Your task to perform on an android device: delete a single message in the gmail app Image 0: 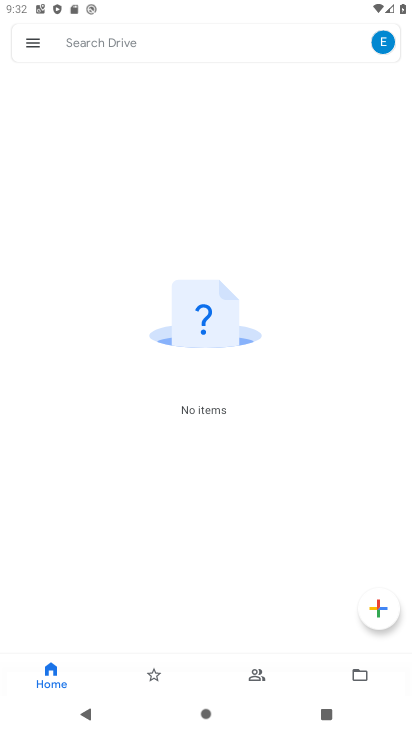
Step 0: press home button
Your task to perform on an android device: delete a single message in the gmail app Image 1: 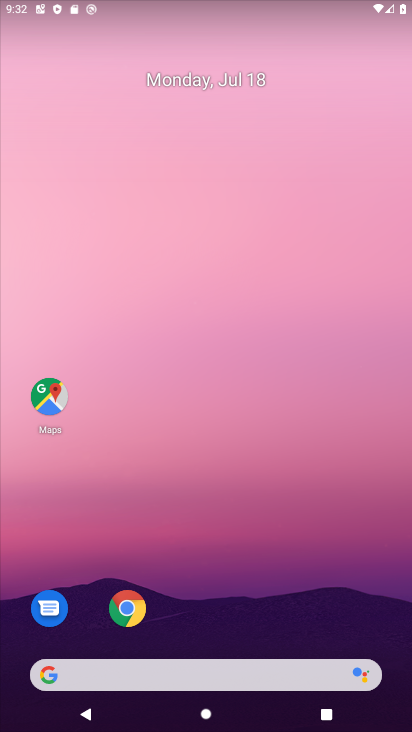
Step 1: drag from (217, 614) to (189, 24)
Your task to perform on an android device: delete a single message in the gmail app Image 2: 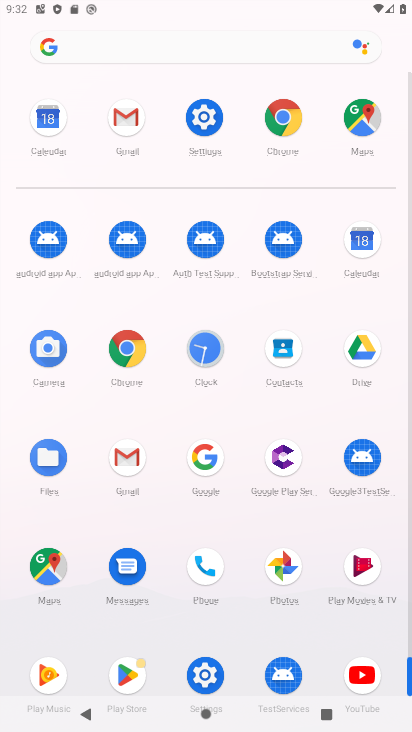
Step 2: click (135, 472)
Your task to perform on an android device: delete a single message in the gmail app Image 3: 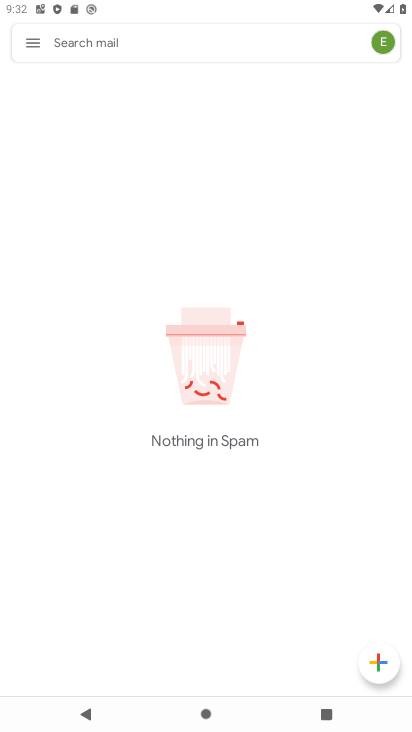
Step 3: click (26, 35)
Your task to perform on an android device: delete a single message in the gmail app Image 4: 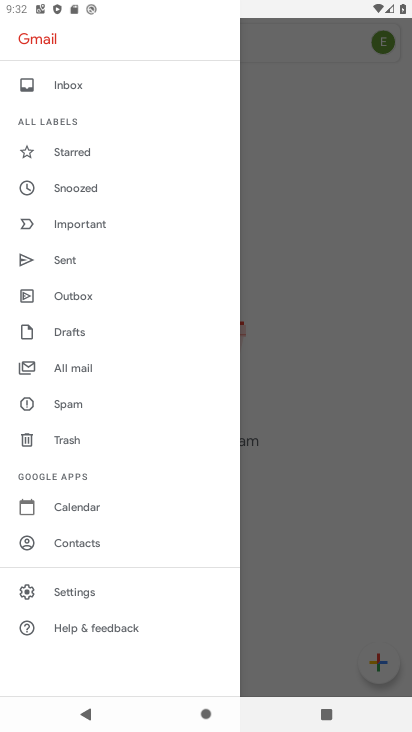
Step 4: click (74, 82)
Your task to perform on an android device: delete a single message in the gmail app Image 5: 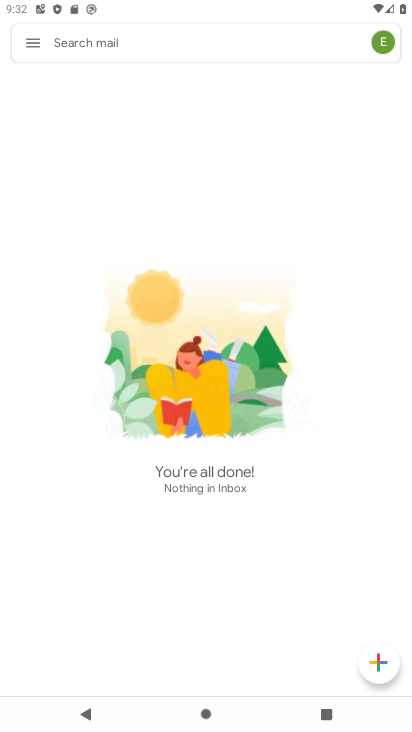
Step 5: task complete